Your task to perform on an android device: toggle priority inbox in the gmail app Image 0: 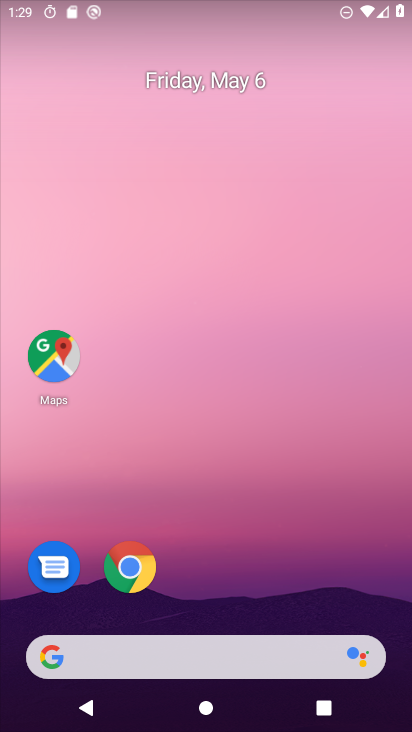
Step 0: drag from (255, 694) to (248, 362)
Your task to perform on an android device: toggle priority inbox in the gmail app Image 1: 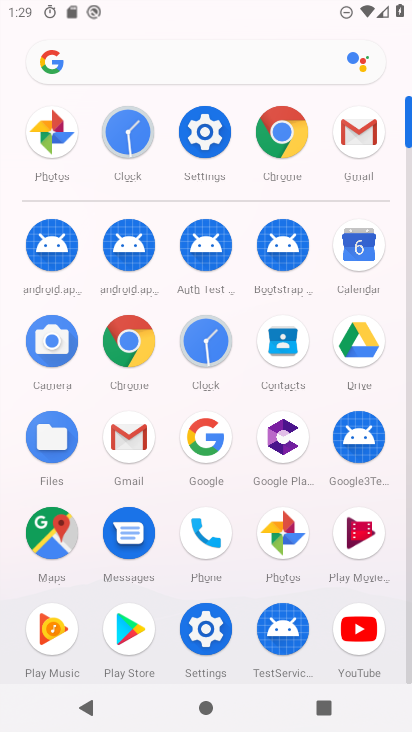
Step 1: click (134, 427)
Your task to perform on an android device: toggle priority inbox in the gmail app Image 2: 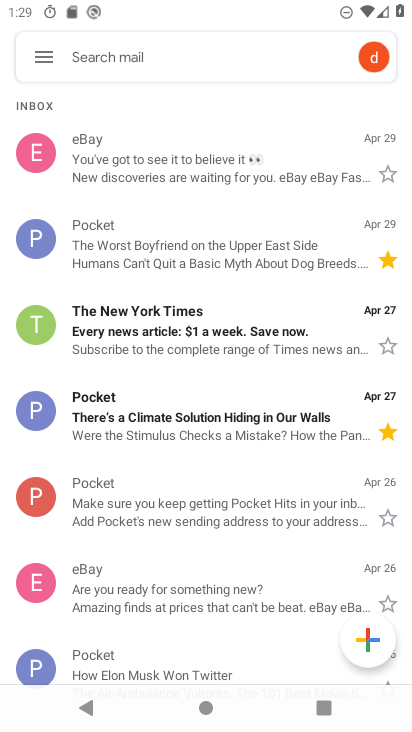
Step 2: click (38, 52)
Your task to perform on an android device: toggle priority inbox in the gmail app Image 3: 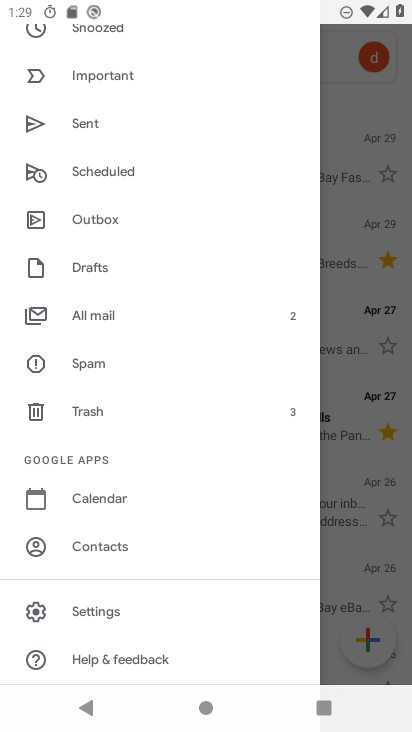
Step 3: click (115, 615)
Your task to perform on an android device: toggle priority inbox in the gmail app Image 4: 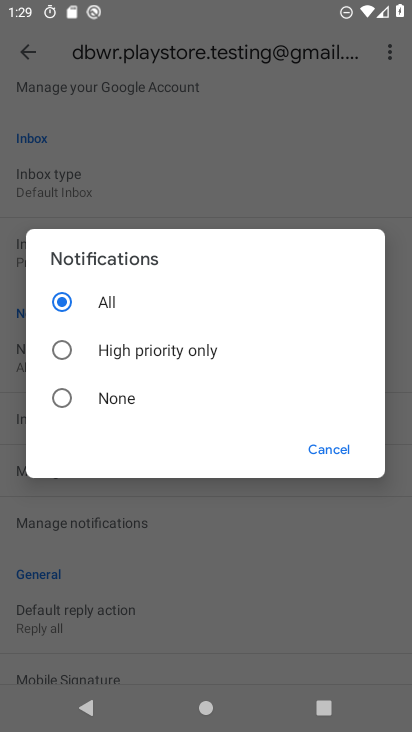
Step 4: click (324, 454)
Your task to perform on an android device: toggle priority inbox in the gmail app Image 5: 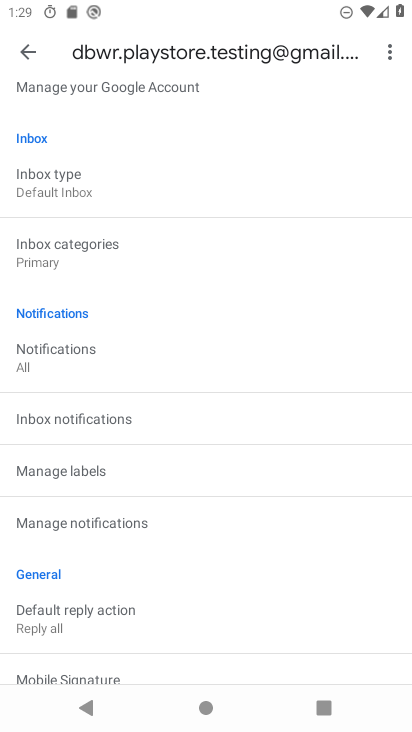
Step 5: click (116, 180)
Your task to perform on an android device: toggle priority inbox in the gmail app Image 6: 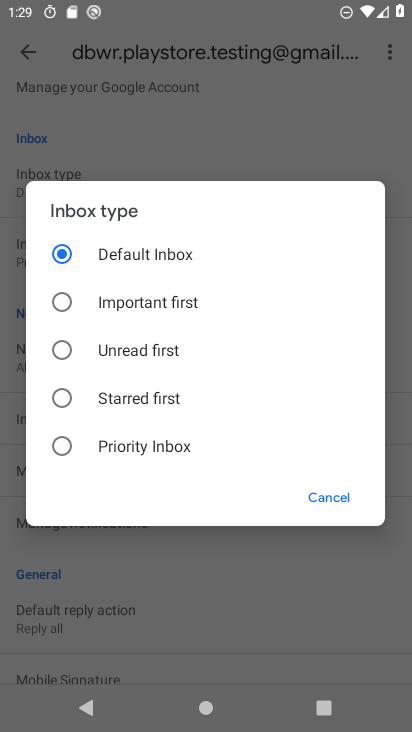
Step 6: task complete